Your task to perform on an android device: turn vacation reply on in the gmail app Image 0: 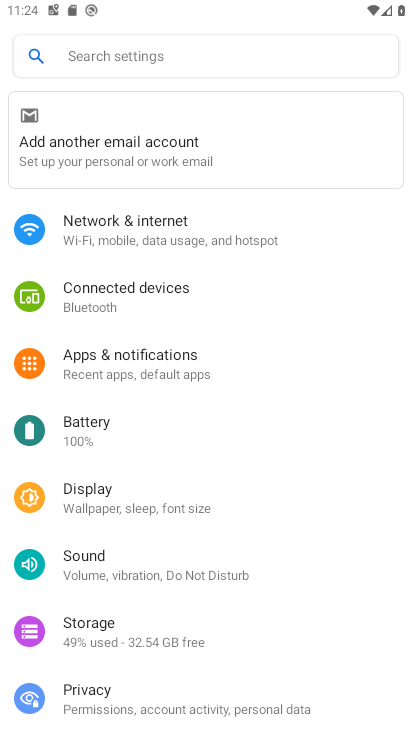
Step 0: press home button
Your task to perform on an android device: turn vacation reply on in the gmail app Image 1: 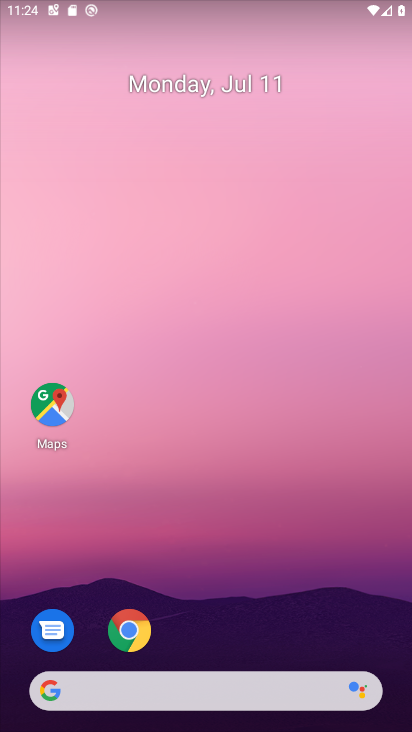
Step 1: drag from (213, 626) to (171, 15)
Your task to perform on an android device: turn vacation reply on in the gmail app Image 2: 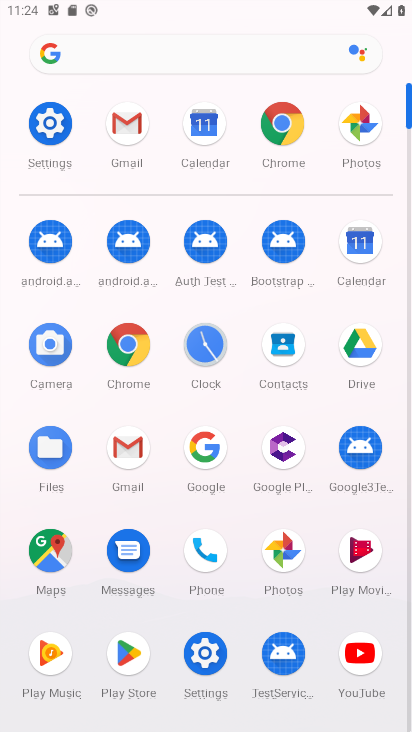
Step 2: click (126, 463)
Your task to perform on an android device: turn vacation reply on in the gmail app Image 3: 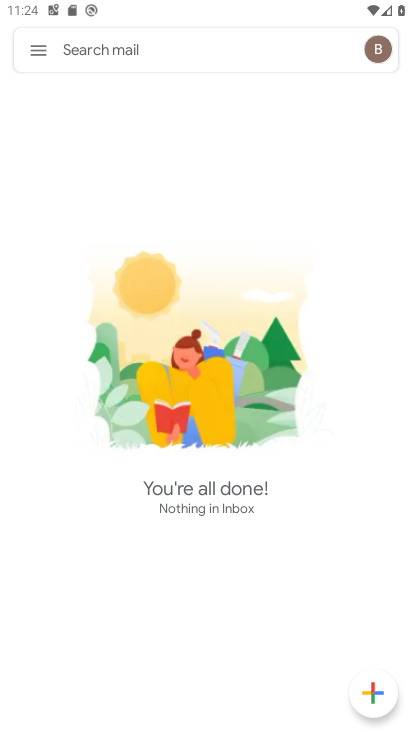
Step 3: click (31, 59)
Your task to perform on an android device: turn vacation reply on in the gmail app Image 4: 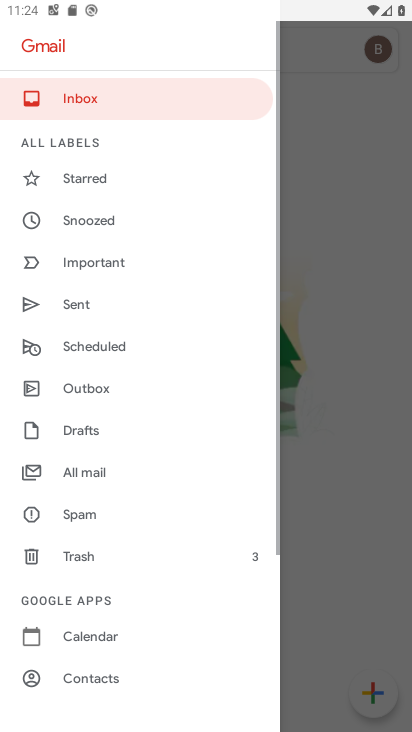
Step 4: drag from (120, 658) to (172, 0)
Your task to perform on an android device: turn vacation reply on in the gmail app Image 5: 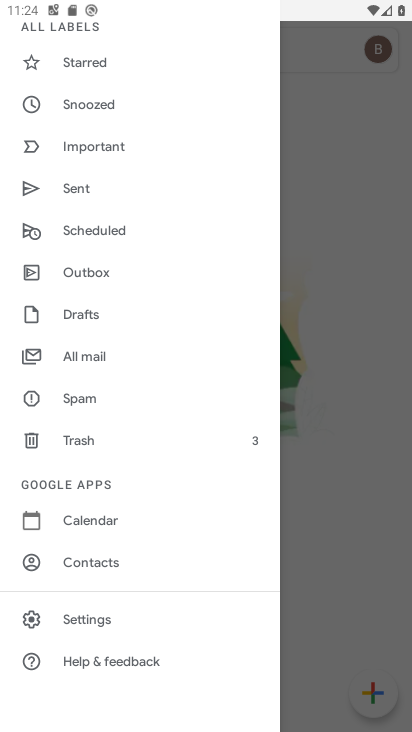
Step 5: click (95, 615)
Your task to perform on an android device: turn vacation reply on in the gmail app Image 6: 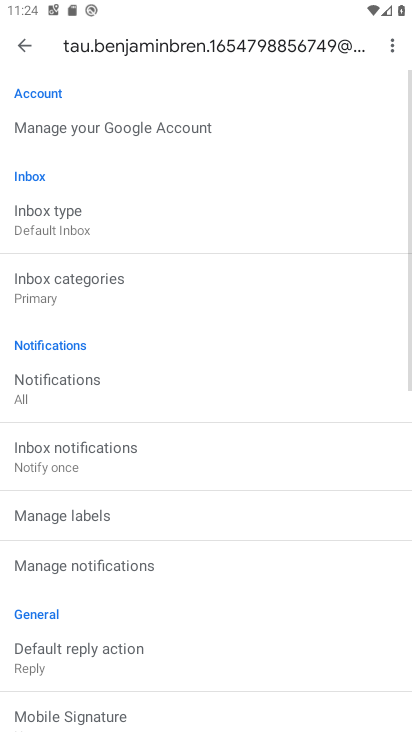
Step 6: drag from (108, 576) to (199, 79)
Your task to perform on an android device: turn vacation reply on in the gmail app Image 7: 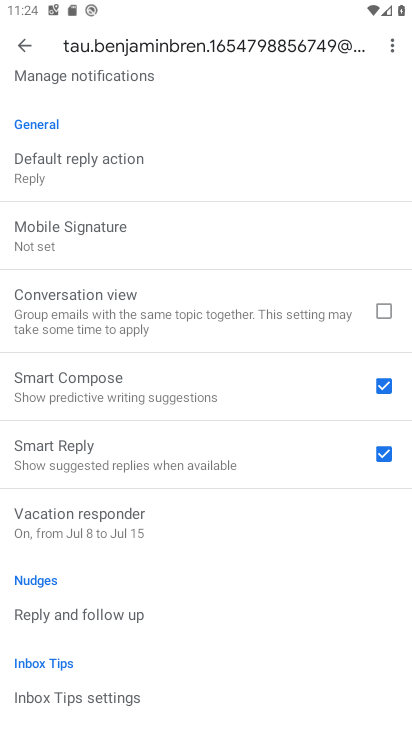
Step 7: click (96, 532)
Your task to perform on an android device: turn vacation reply on in the gmail app Image 8: 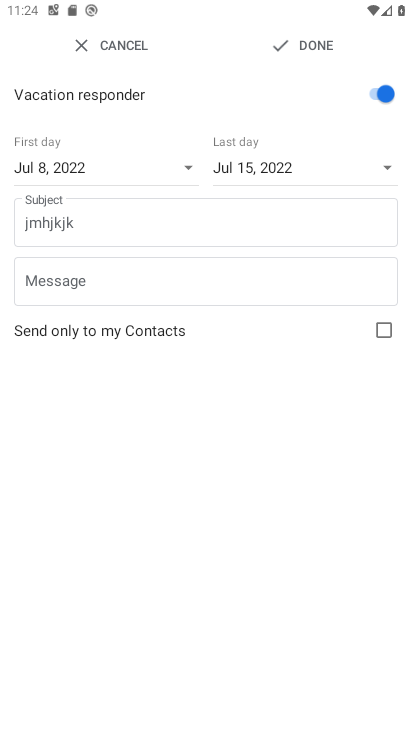
Step 8: task complete